Your task to perform on an android device: turn off wifi Image 0: 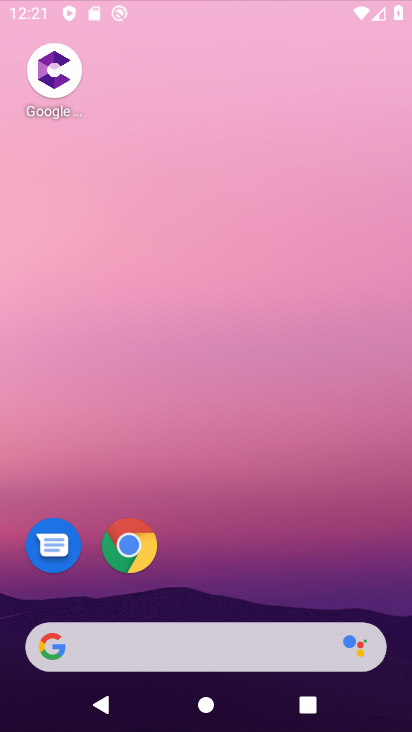
Step 0: click (238, 172)
Your task to perform on an android device: turn off wifi Image 1: 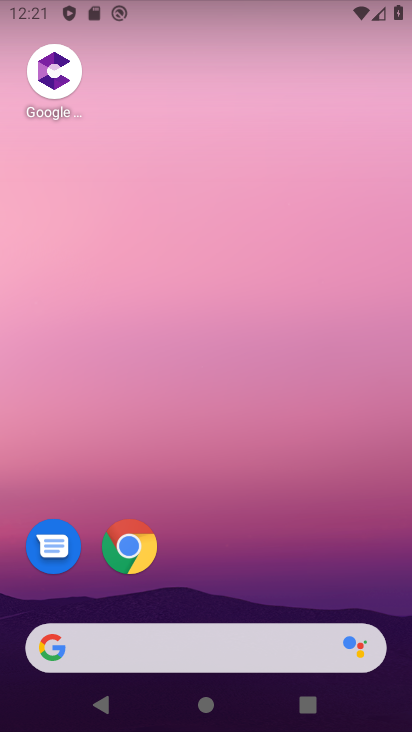
Step 1: press home button
Your task to perform on an android device: turn off wifi Image 2: 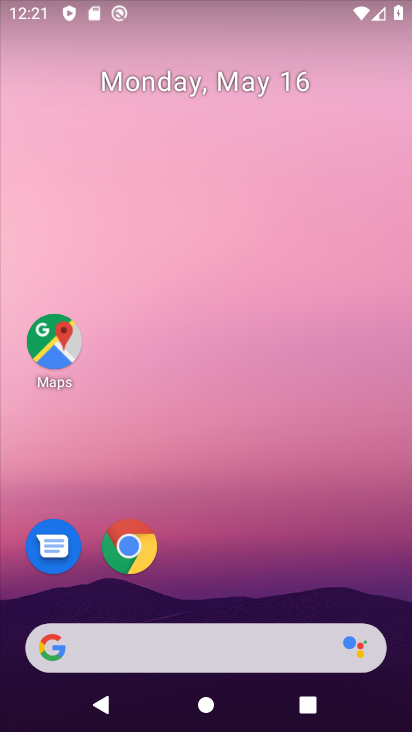
Step 2: drag from (287, 564) to (335, 154)
Your task to perform on an android device: turn off wifi Image 3: 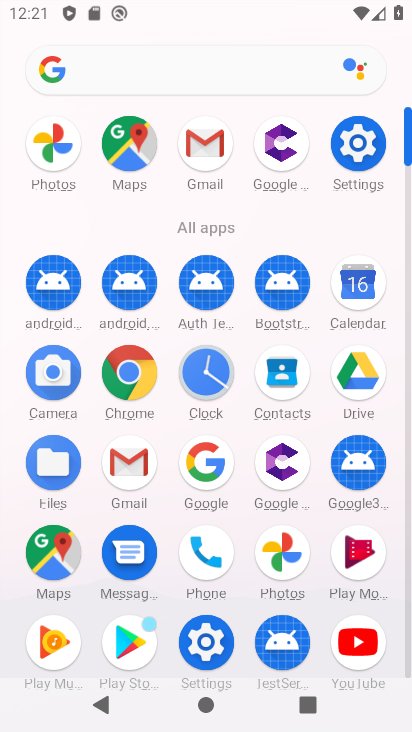
Step 3: click (371, 133)
Your task to perform on an android device: turn off wifi Image 4: 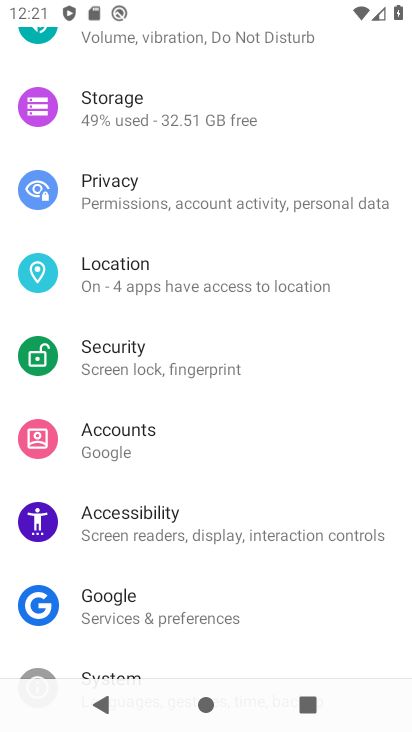
Step 4: drag from (292, 122) to (177, 591)
Your task to perform on an android device: turn off wifi Image 5: 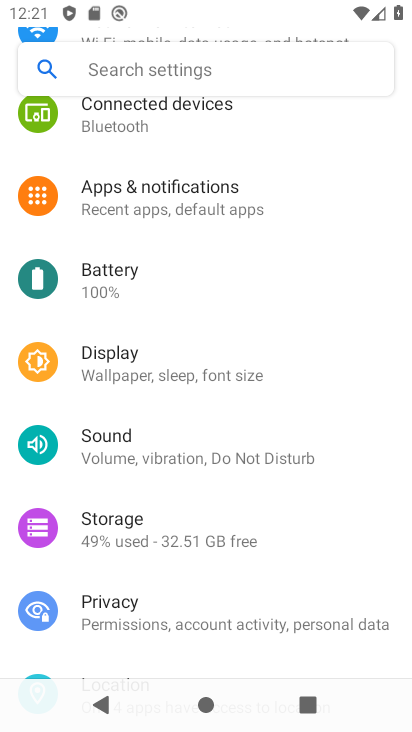
Step 5: drag from (214, 192) to (179, 531)
Your task to perform on an android device: turn off wifi Image 6: 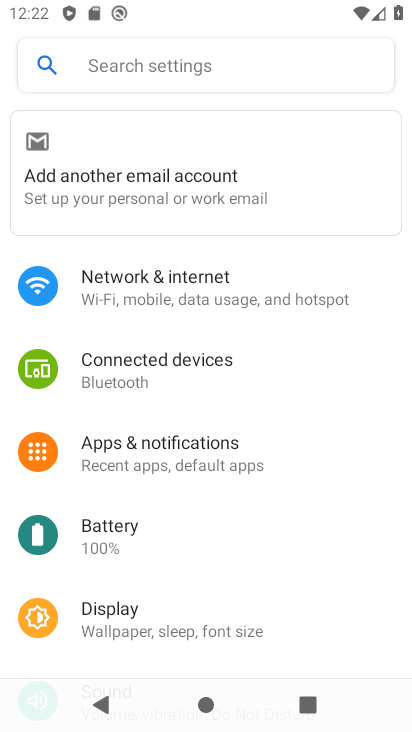
Step 6: click (211, 288)
Your task to perform on an android device: turn off wifi Image 7: 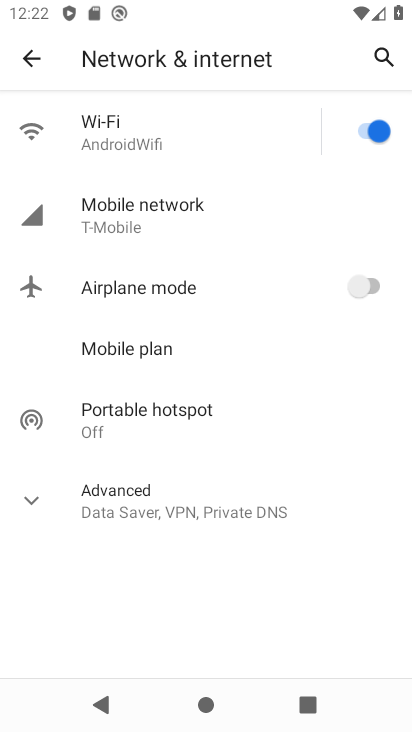
Step 7: click (364, 134)
Your task to perform on an android device: turn off wifi Image 8: 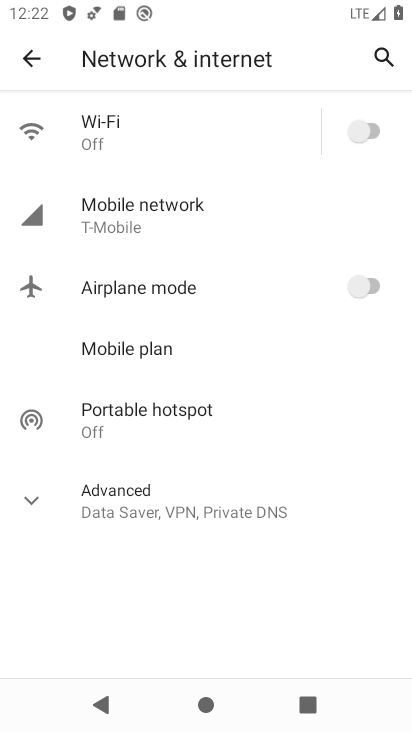
Step 8: task complete